Your task to perform on an android device: clear all cookies in the chrome app Image 0: 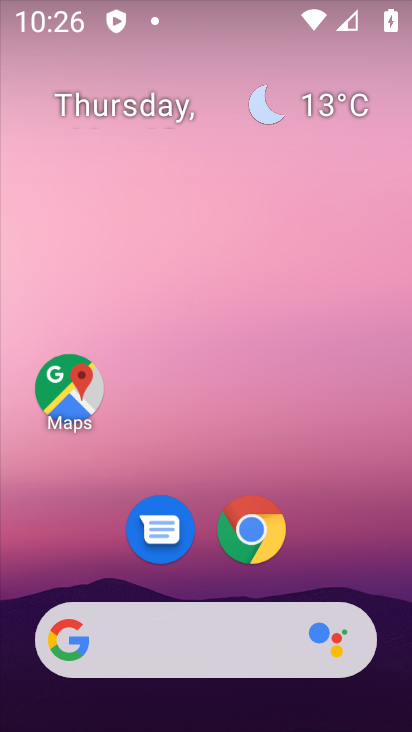
Step 0: click (244, 525)
Your task to perform on an android device: clear all cookies in the chrome app Image 1: 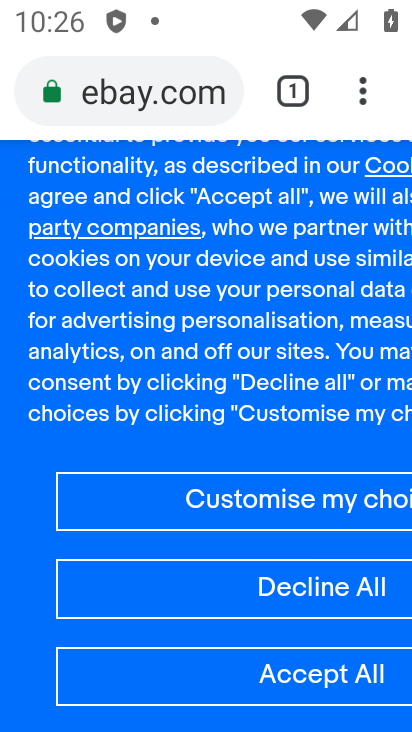
Step 1: click (361, 99)
Your task to perform on an android device: clear all cookies in the chrome app Image 2: 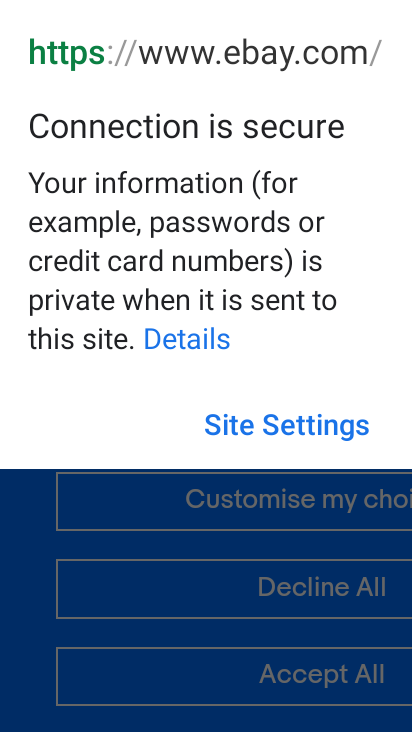
Step 2: click (235, 584)
Your task to perform on an android device: clear all cookies in the chrome app Image 3: 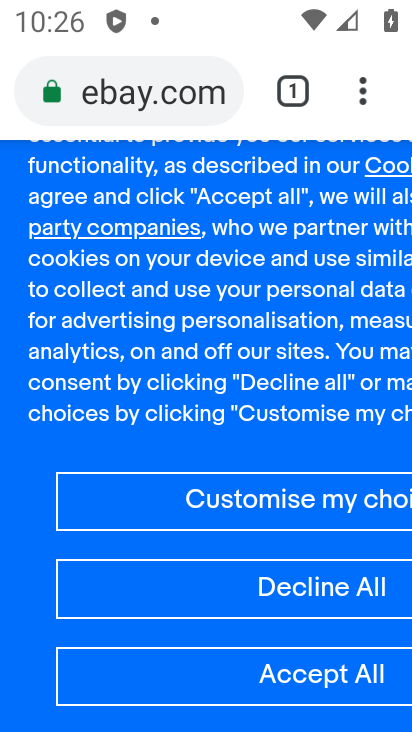
Step 3: click (367, 76)
Your task to perform on an android device: clear all cookies in the chrome app Image 4: 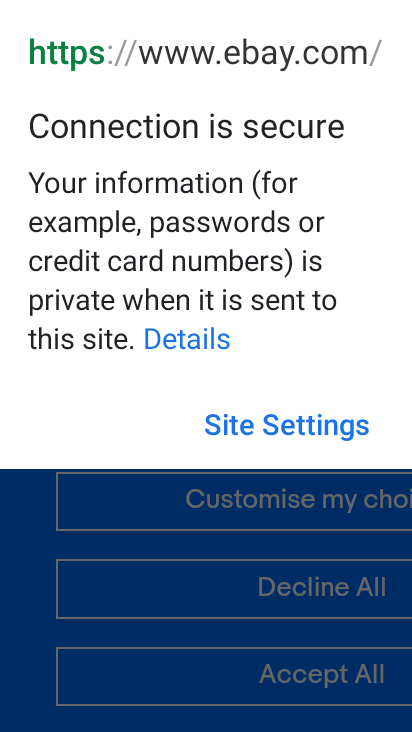
Step 4: click (205, 519)
Your task to perform on an android device: clear all cookies in the chrome app Image 5: 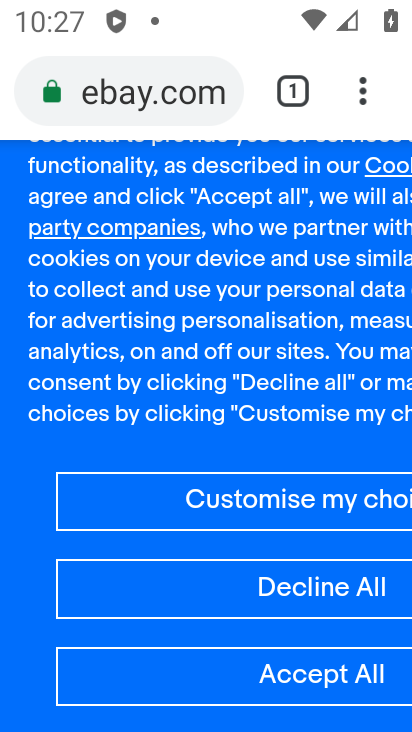
Step 5: click (371, 114)
Your task to perform on an android device: clear all cookies in the chrome app Image 6: 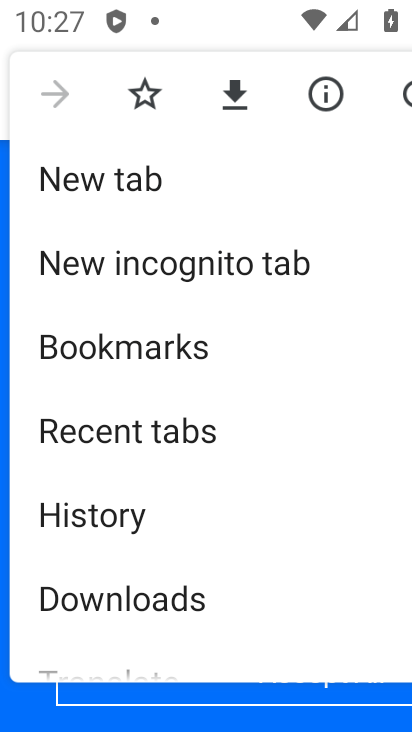
Step 6: click (114, 514)
Your task to perform on an android device: clear all cookies in the chrome app Image 7: 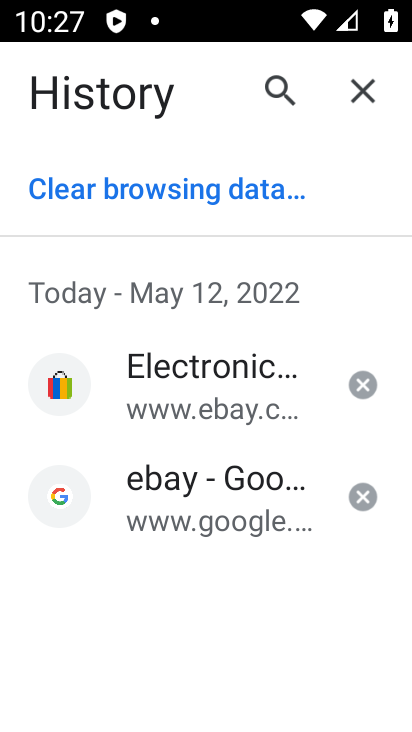
Step 7: click (173, 191)
Your task to perform on an android device: clear all cookies in the chrome app Image 8: 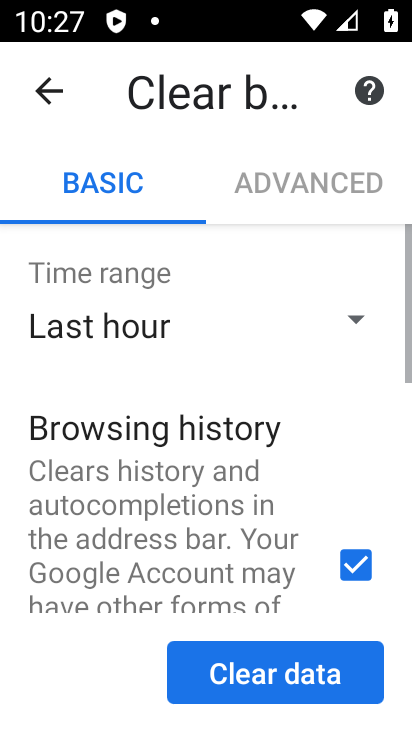
Step 8: click (198, 534)
Your task to perform on an android device: clear all cookies in the chrome app Image 9: 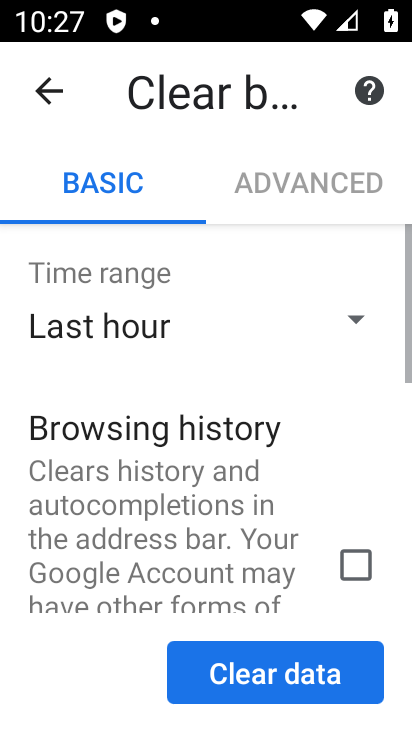
Step 9: drag from (183, 549) to (196, 275)
Your task to perform on an android device: clear all cookies in the chrome app Image 10: 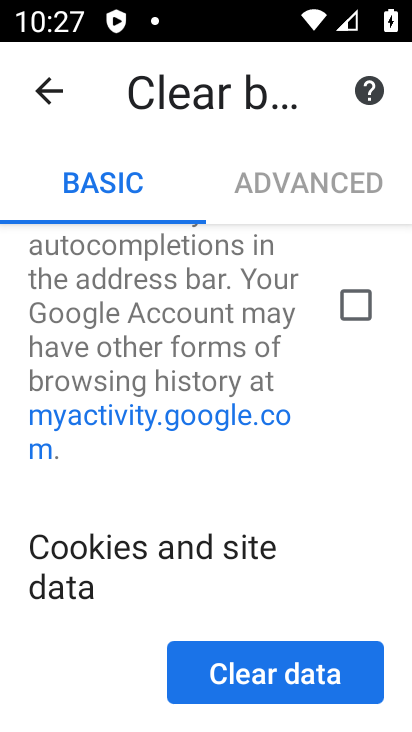
Step 10: drag from (266, 554) to (270, 280)
Your task to perform on an android device: clear all cookies in the chrome app Image 11: 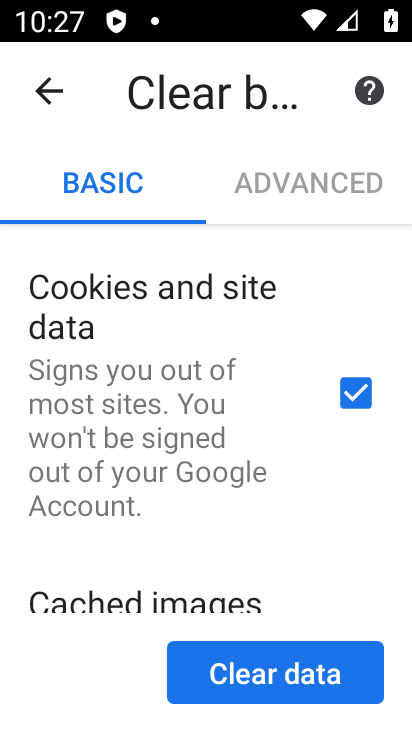
Step 11: drag from (310, 599) to (322, 416)
Your task to perform on an android device: clear all cookies in the chrome app Image 12: 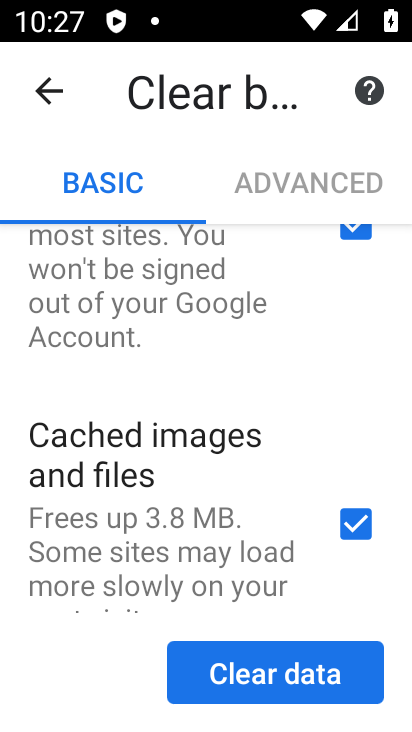
Step 12: click (358, 562)
Your task to perform on an android device: clear all cookies in the chrome app Image 13: 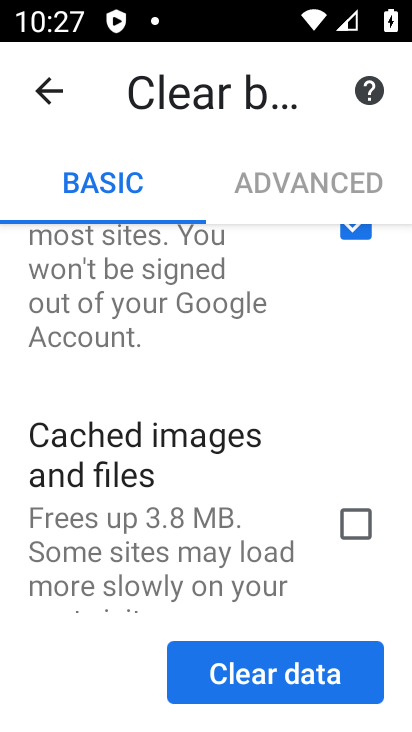
Step 13: click (309, 673)
Your task to perform on an android device: clear all cookies in the chrome app Image 14: 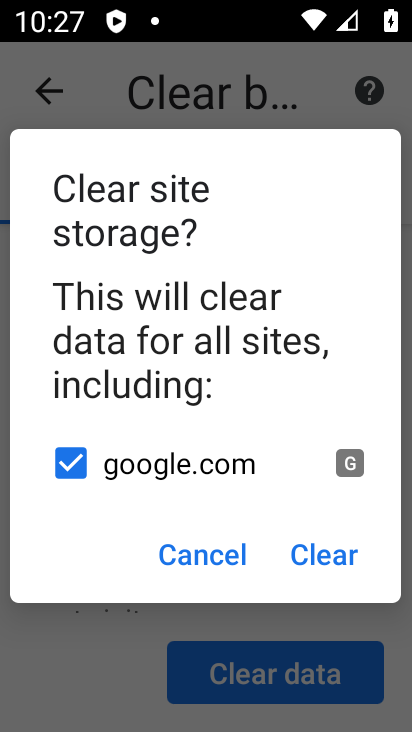
Step 14: click (316, 563)
Your task to perform on an android device: clear all cookies in the chrome app Image 15: 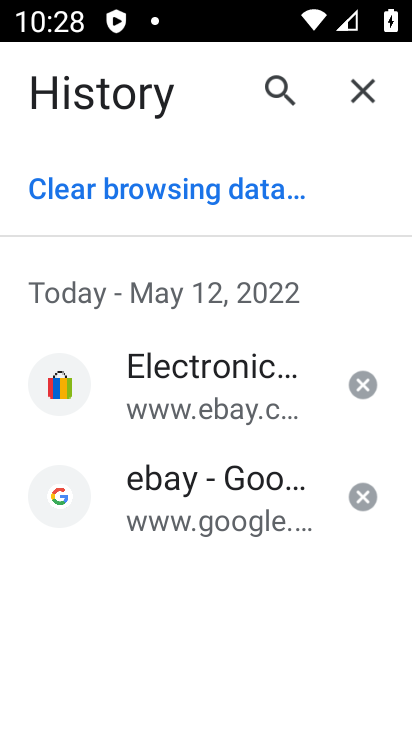
Step 15: task complete